Your task to perform on an android device: open app "AliExpress" (install if not already installed) Image 0: 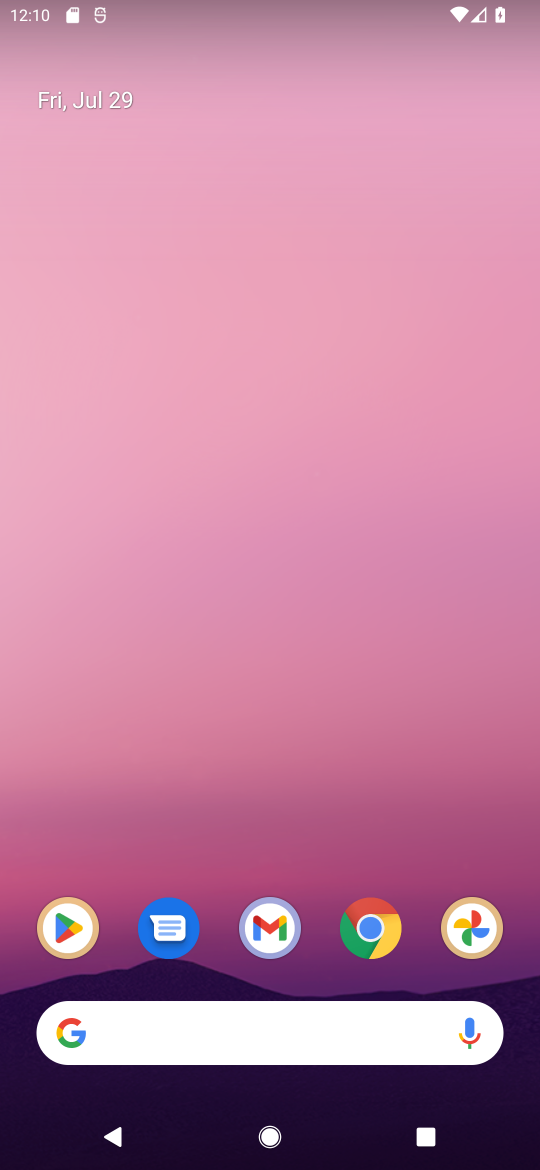
Step 0: drag from (362, 791) to (391, 62)
Your task to perform on an android device: open app "AliExpress" (install if not already installed) Image 1: 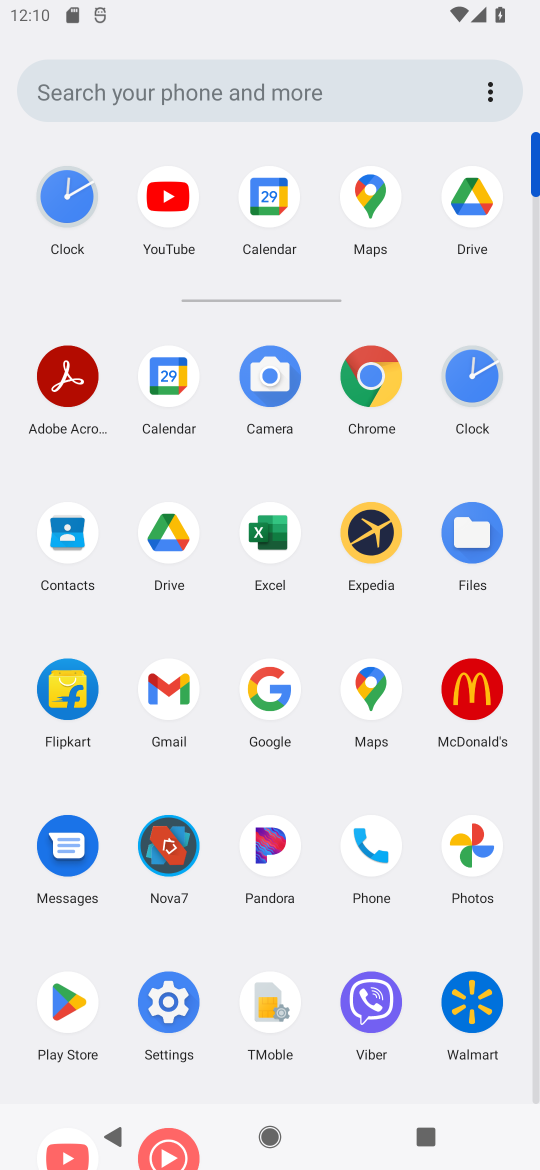
Step 1: click (70, 993)
Your task to perform on an android device: open app "AliExpress" (install if not already installed) Image 2: 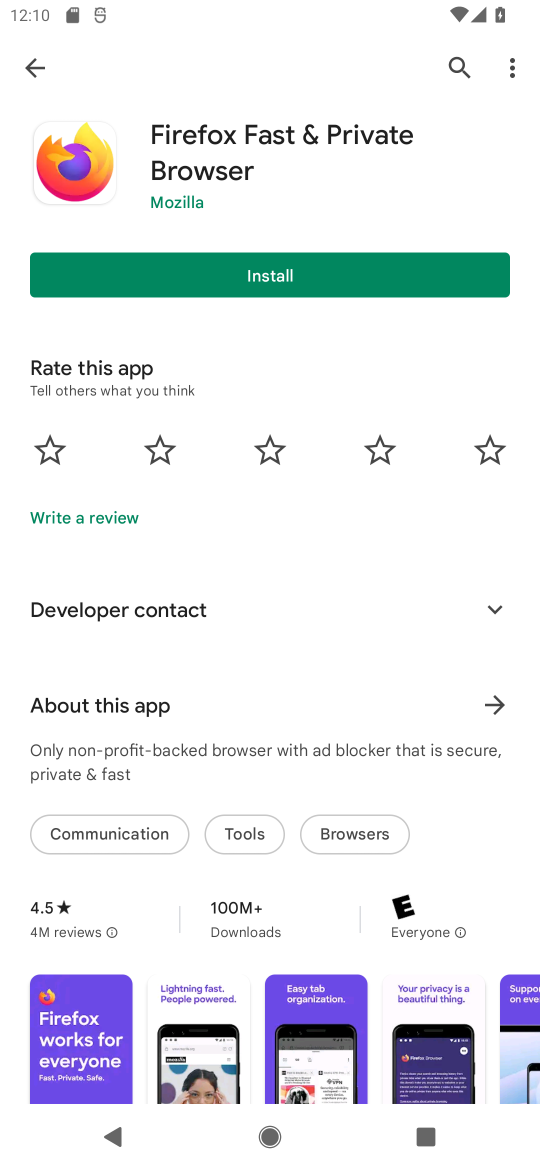
Step 2: click (464, 64)
Your task to perform on an android device: open app "AliExpress" (install if not already installed) Image 3: 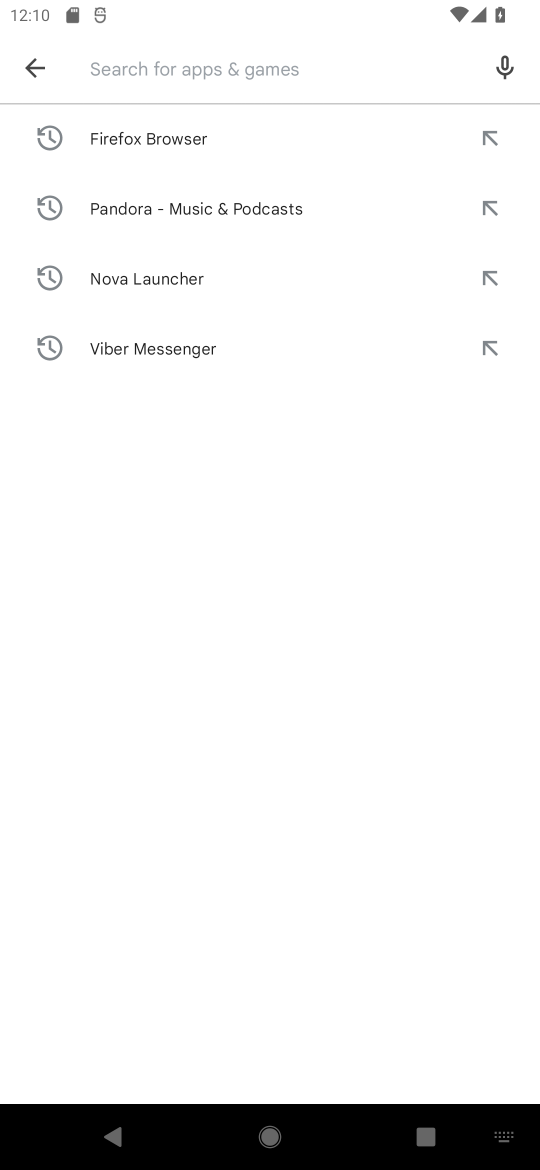
Step 3: type "AliExpress"
Your task to perform on an android device: open app "AliExpress" (install if not already installed) Image 4: 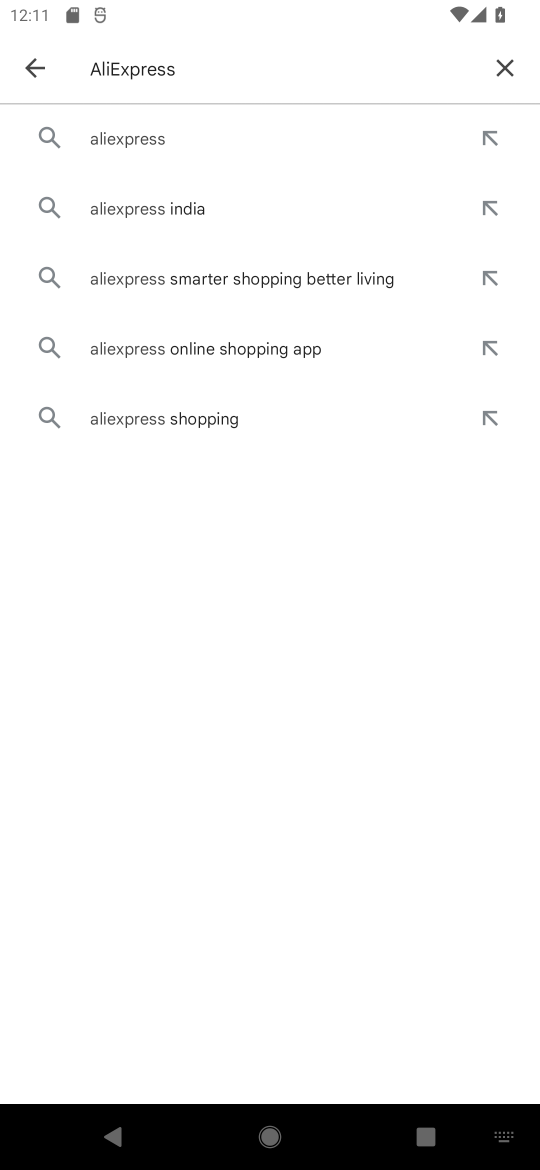
Step 4: press enter
Your task to perform on an android device: open app "AliExpress" (install if not already installed) Image 5: 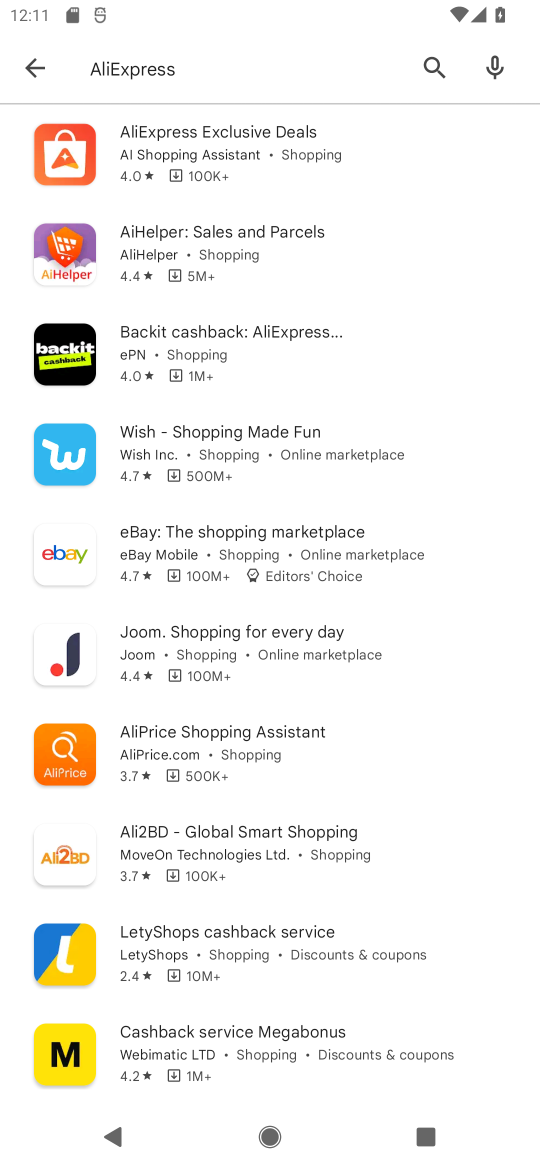
Step 5: click (168, 163)
Your task to perform on an android device: open app "AliExpress" (install if not already installed) Image 6: 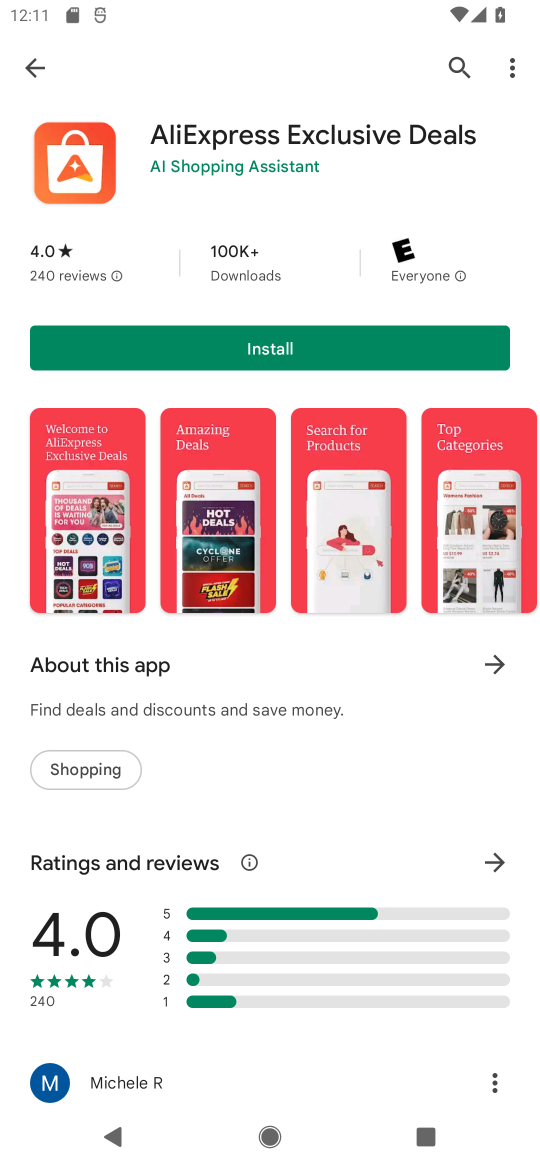
Step 6: task complete